Your task to perform on an android device: turn off location history Image 0: 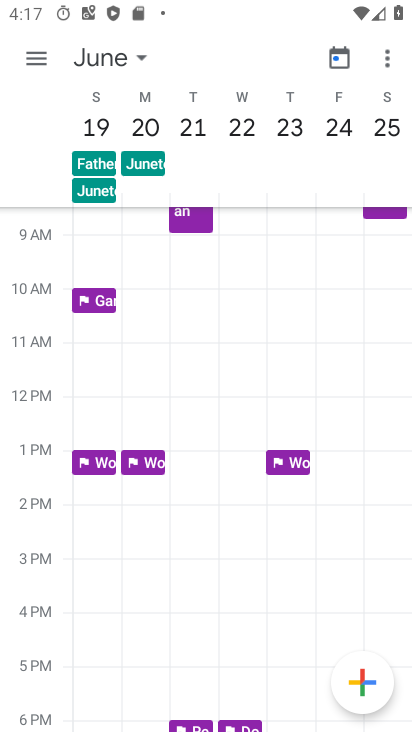
Step 0: press home button
Your task to perform on an android device: turn off location history Image 1: 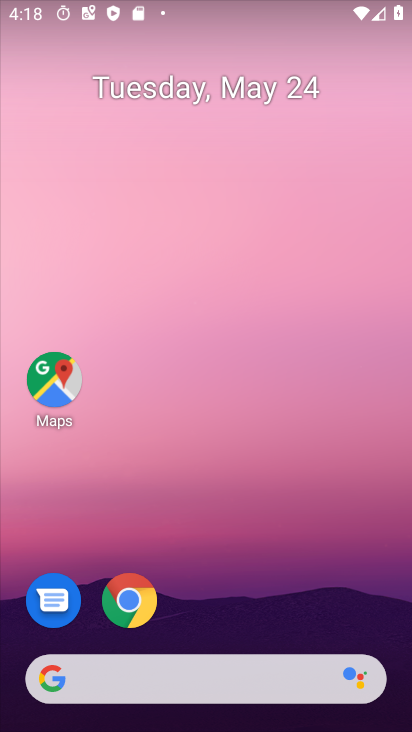
Step 1: click (55, 378)
Your task to perform on an android device: turn off location history Image 2: 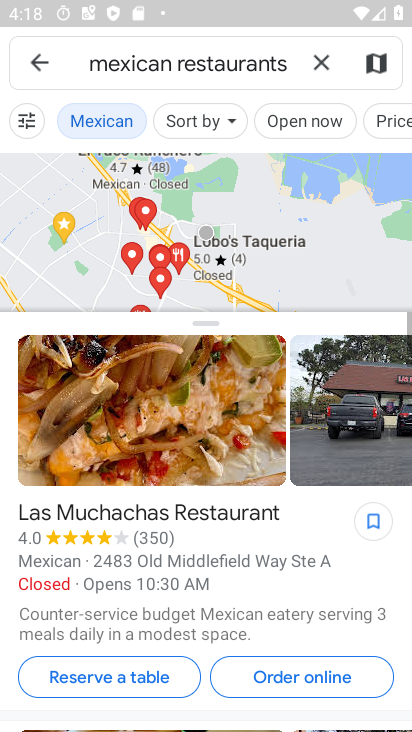
Step 2: click (314, 67)
Your task to perform on an android device: turn off location history Image 3: 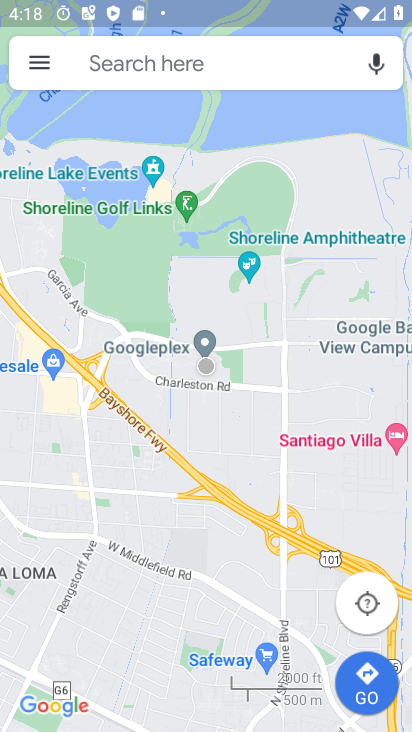
Step 3: click (36, 64)
Your task to perform on an android device: turn off location history Image 4: 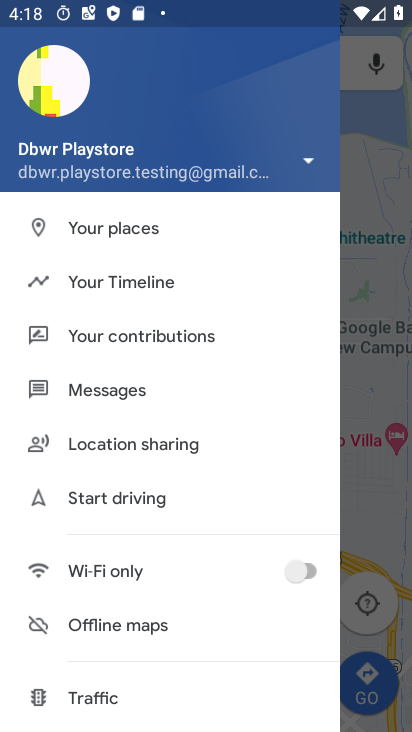
Step 4: click (69, 287)
Your task to perform on an android device: turn off location history Image 5: 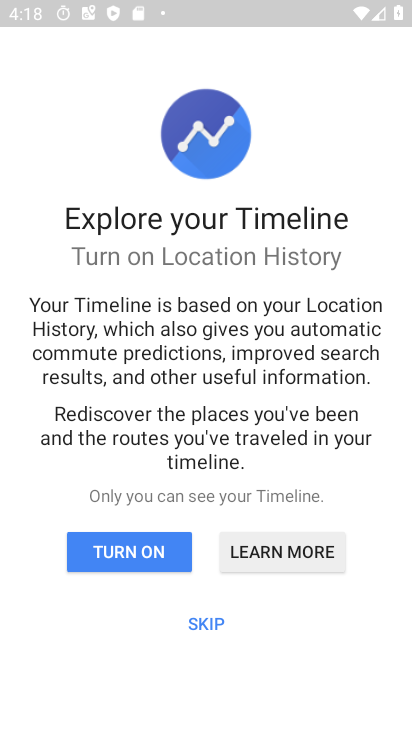
Step 5: click (205, 620)
Your task to perform on an android device: turn off location history Image 6: 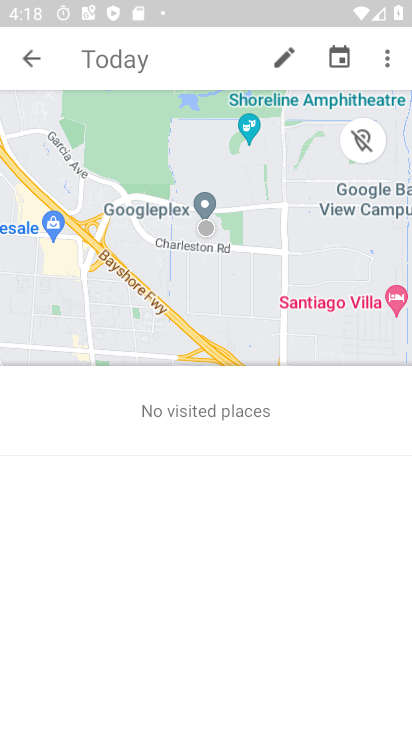
Step 6: click (387, 58)
Your task to perform on an android device: turn off location history Image 7: 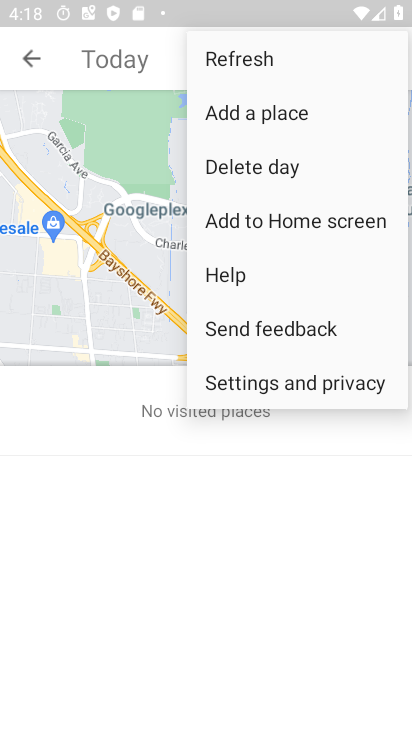
Step 7: click (296, 380)
Your task to perform on an android device: turn off location history Image 8: 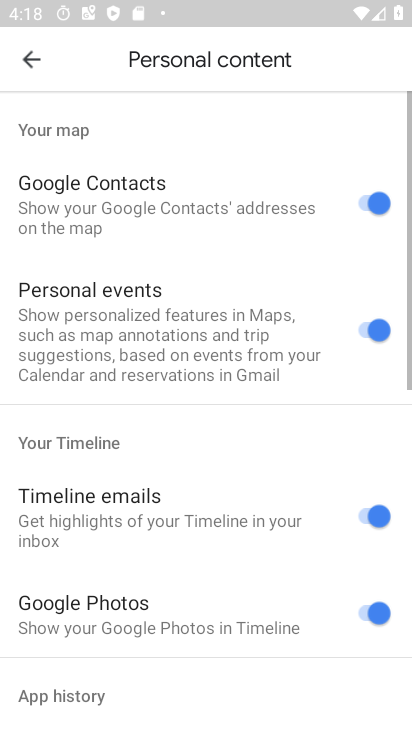
Step 8: drag from (214, 556) to (211, 99)
Your task to perform on an android device: turn off location history Image 9: 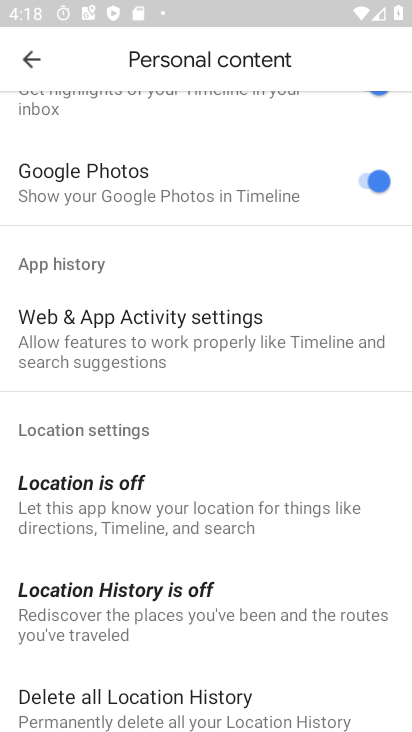
Step 9: drag from (151, 547) to (143, 165)
Your task to perform on an android device: turn off location history Image 10: 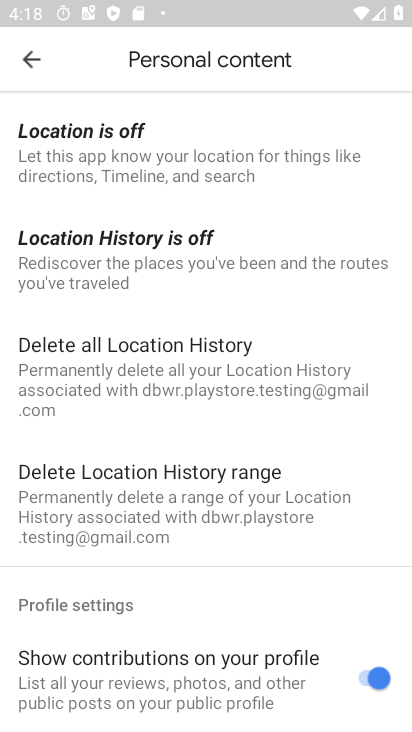
Step 10: click (98, 269)
Your task to perform on an android device: turn off location history Image 11: 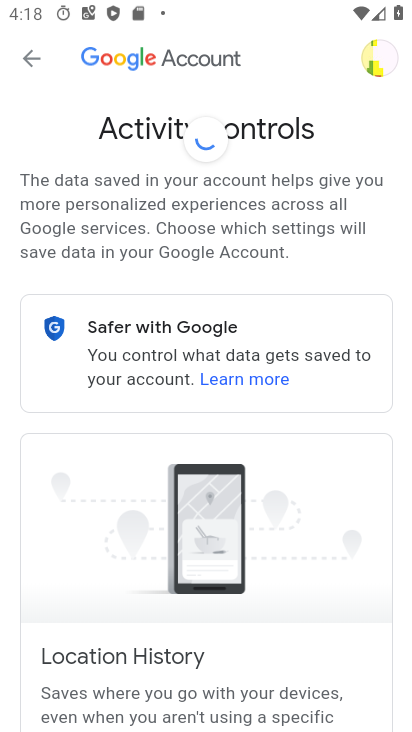
Step 11: task complete